Your task to perform on an android device: Open Amazon Image 0: 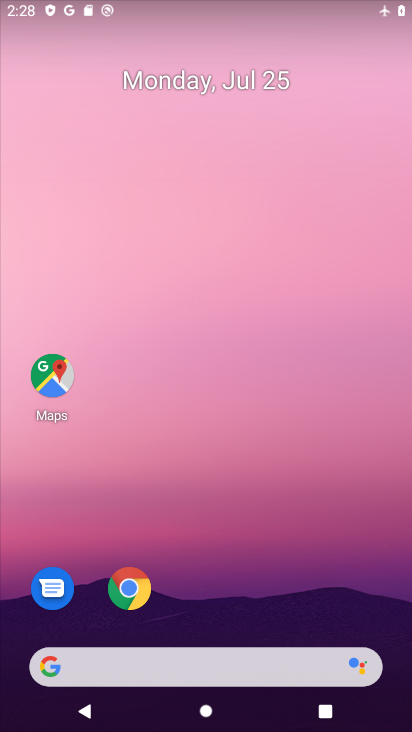
Step 0: press home button
Your task to perform on an android device: Open Amazon Image 1: 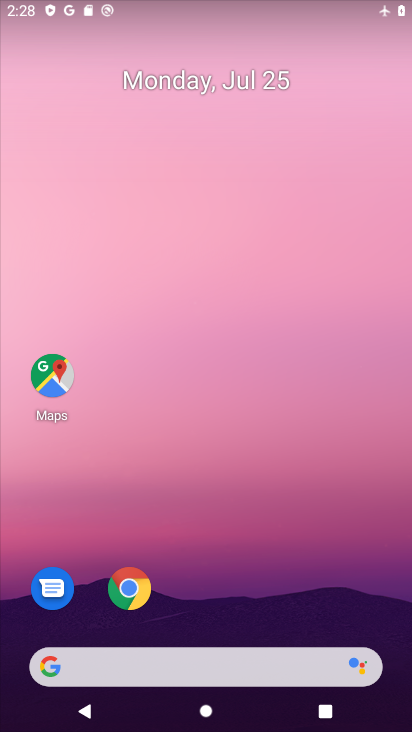
Step 1: click (126, 583)
Your task to perform on an android device: Open Amazon Image 2: 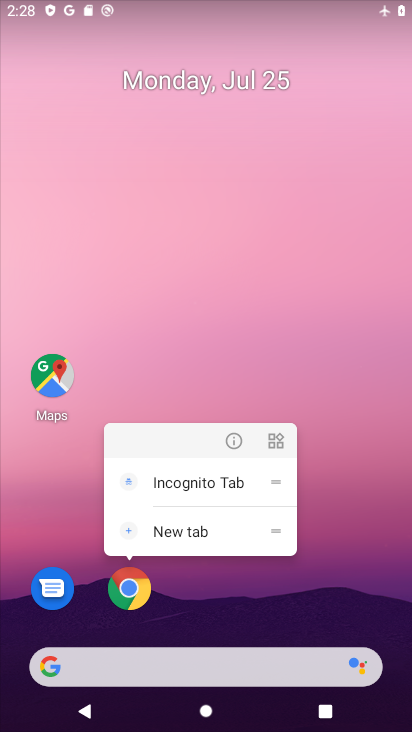
Step 2: click (127, 583)
Your task to perform on an android device: Open Amazon Image 3: 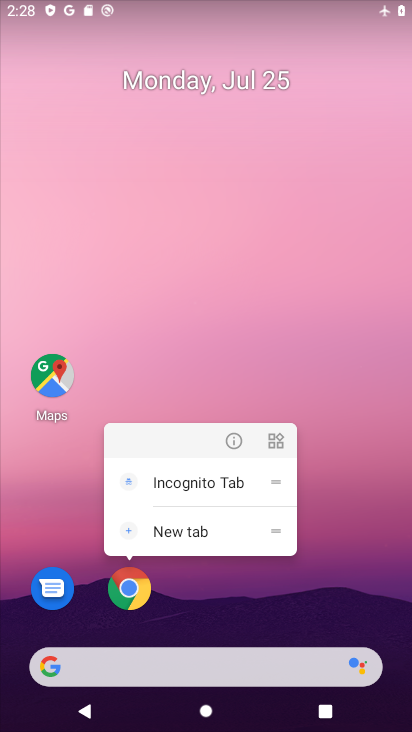
Step 3: click (134, 583)
Your task to perform on an android device: Open Amazon Image 4: 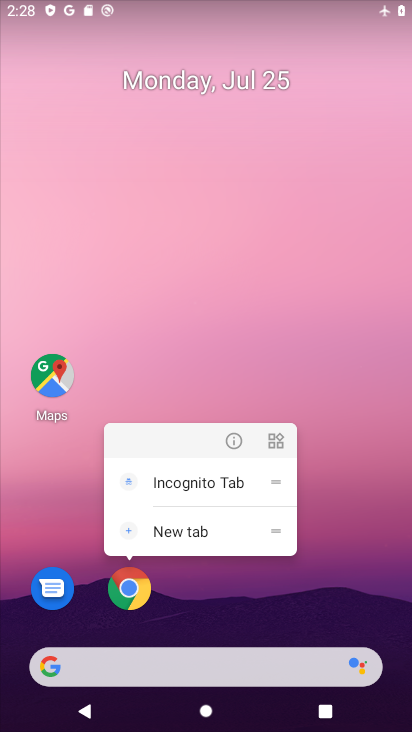
Step 4: click (128, 580)
Your task to perform on an android device: Open Amazon Image 5: 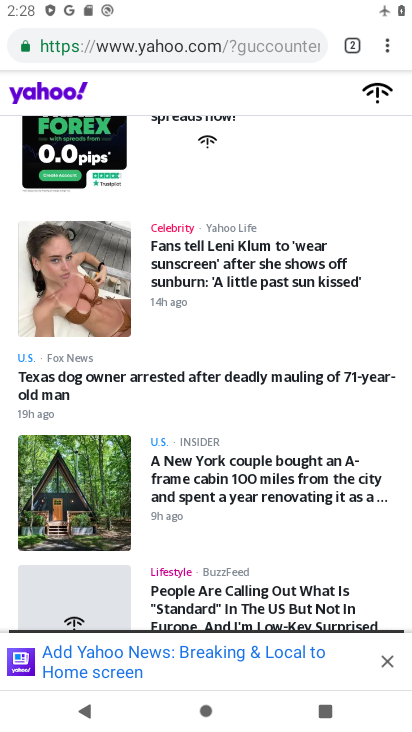
Step 5: click (355, 40)
Your task to perform on an android device: Open Amazon Image 6: 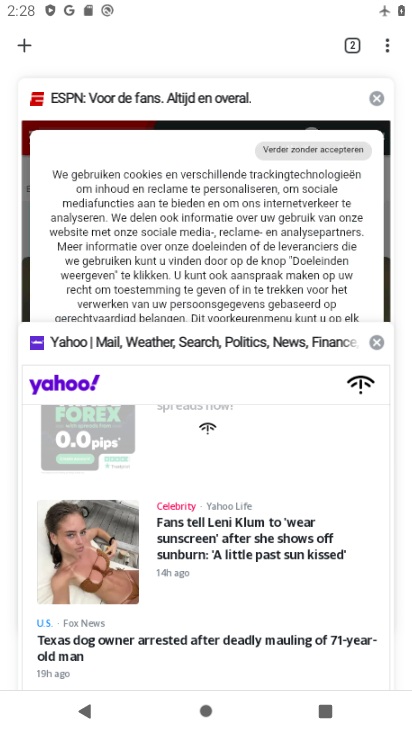
Step 6: click (19, 41)
Your task to perform on an android device: Open Amazon Image 7: 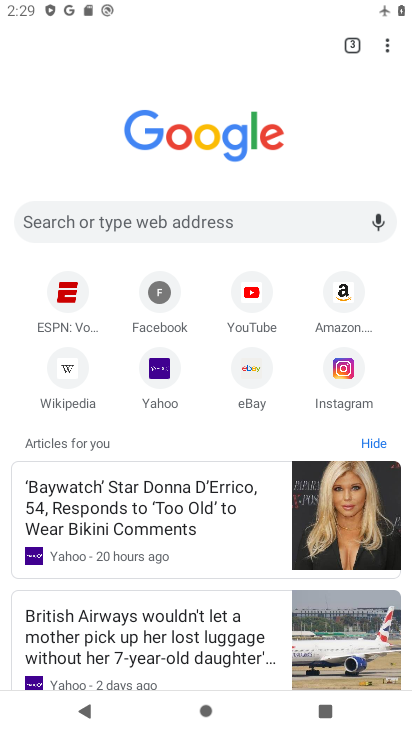
Step 7: click (340, 287)
Your task to perform on an android device: Open Amazon Image 8: 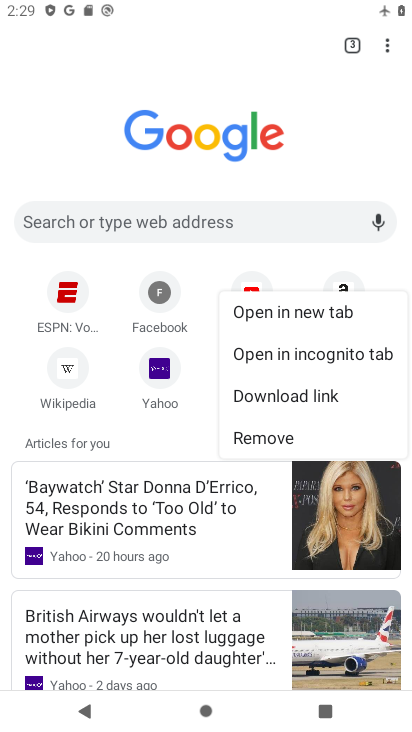
Step 8: click (294, 261)
Your task to perform on an android device: Open Amazon Image 9: 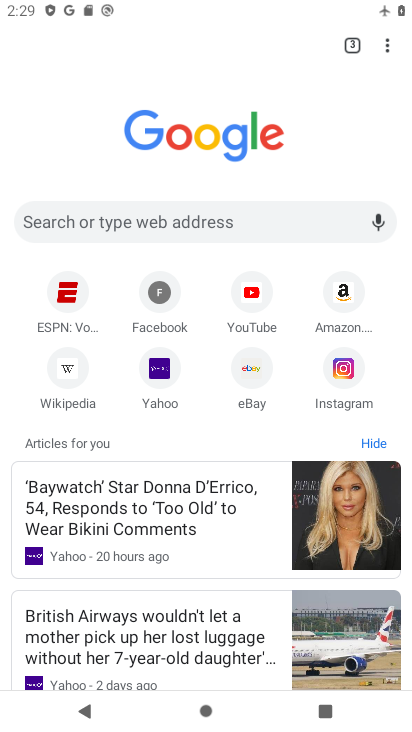
Step 9: click (345, 286)
Your task to perform on an android device: Open Amazon Image 10: 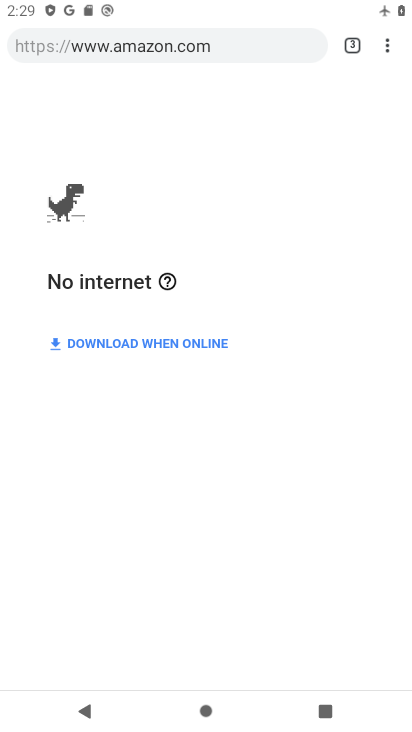
Step 10: task complete